Your task to perform on an android device: turn on airplane mode Image 0: 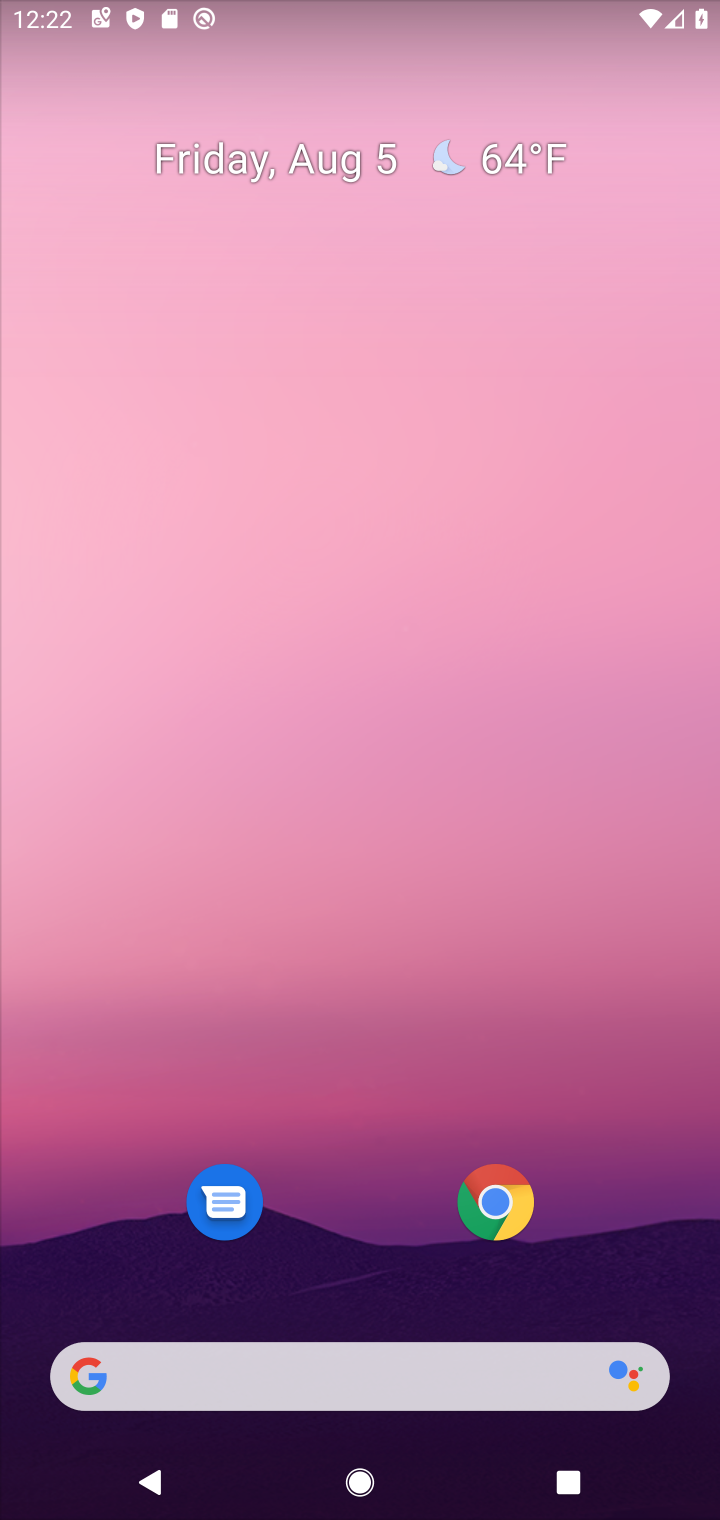
Step 0: drag from (660, 110) to (572, 1242)
Your task to perform on an android device: turn on airplane mode Image 1: 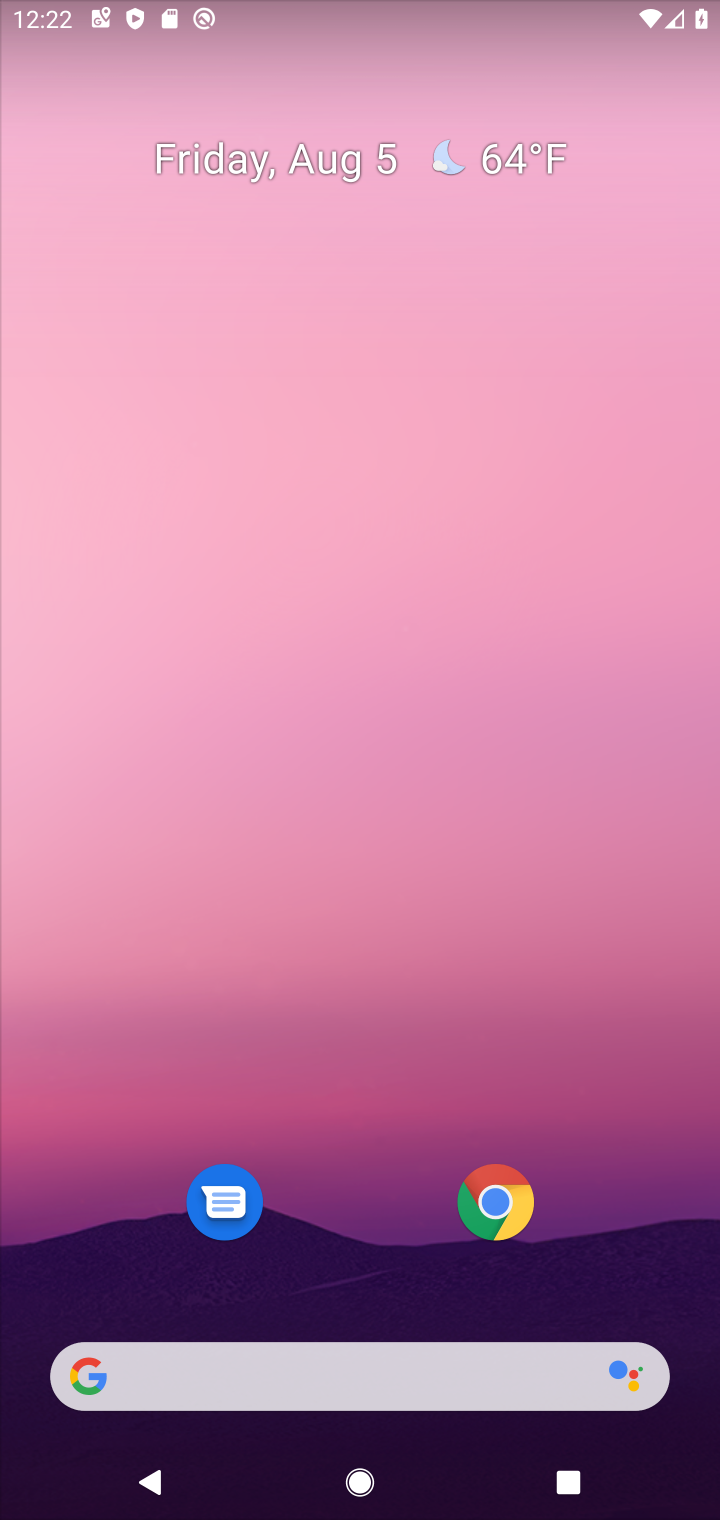
Step 1: drag from (673, 42) to (410, 1196)
Your task to perform on an android device: turn on airplane mode Image 2: 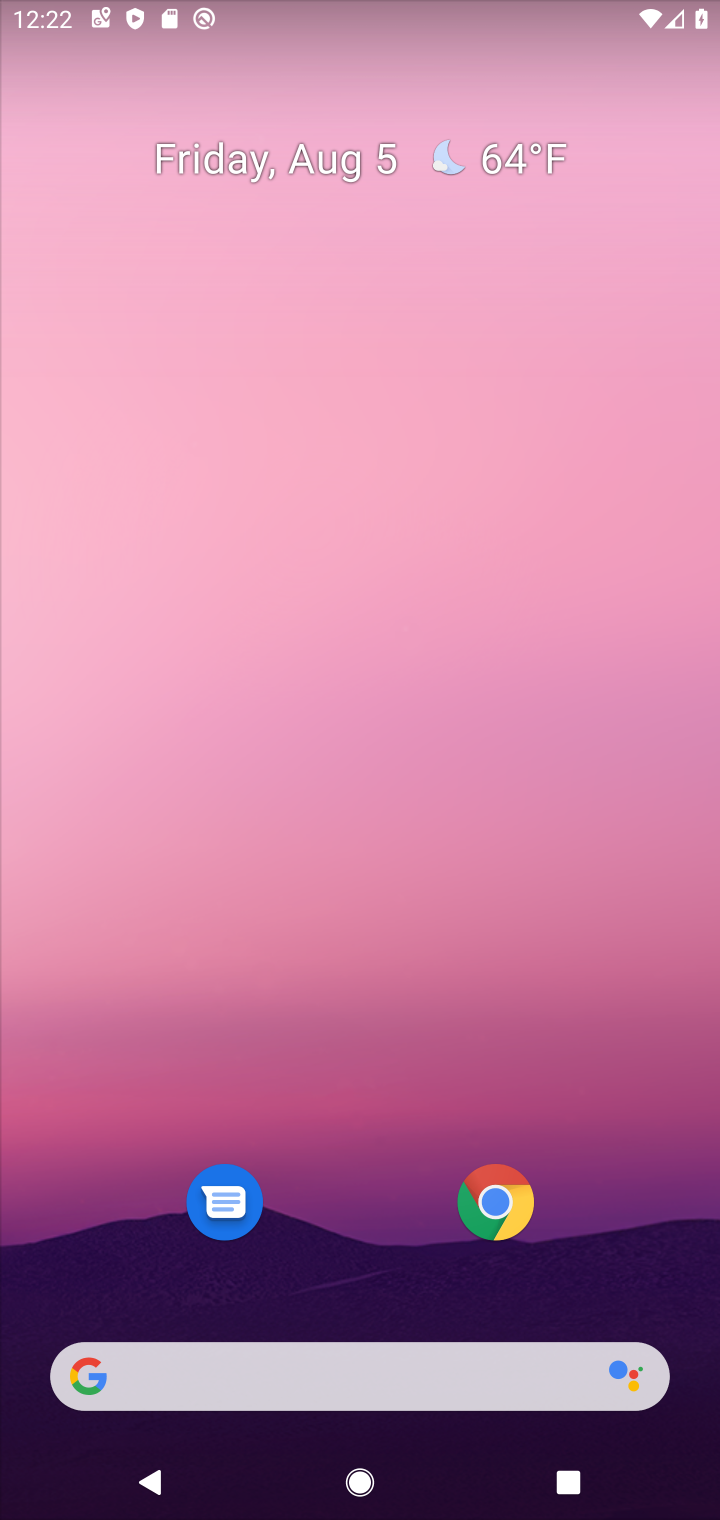
Step 2: drag from (143, 7) to (267, 915)
Your task to perform on an android device: turn on airplane mode Image 3: 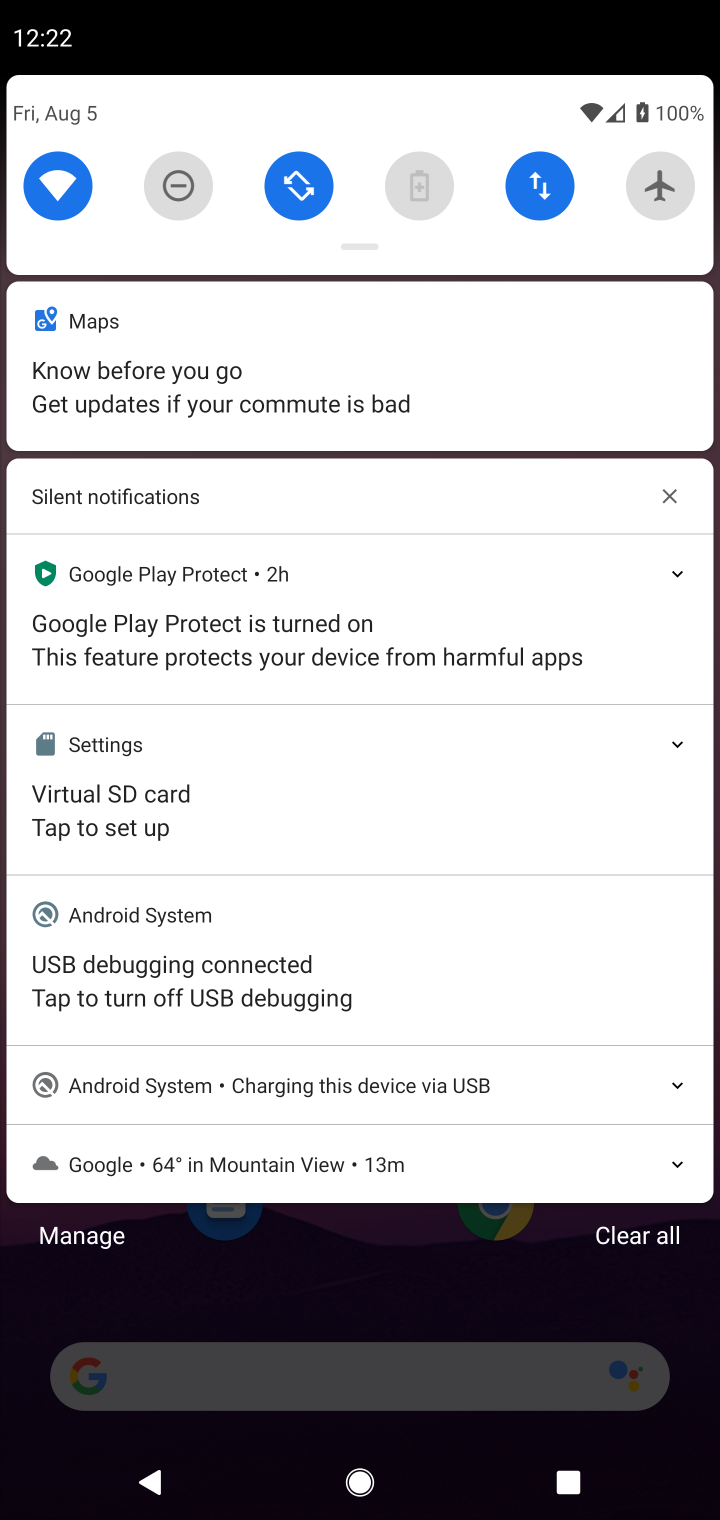
Step 3: click (671, 183)
Your task to perform on an android device: turn on airplane mode Image 4: 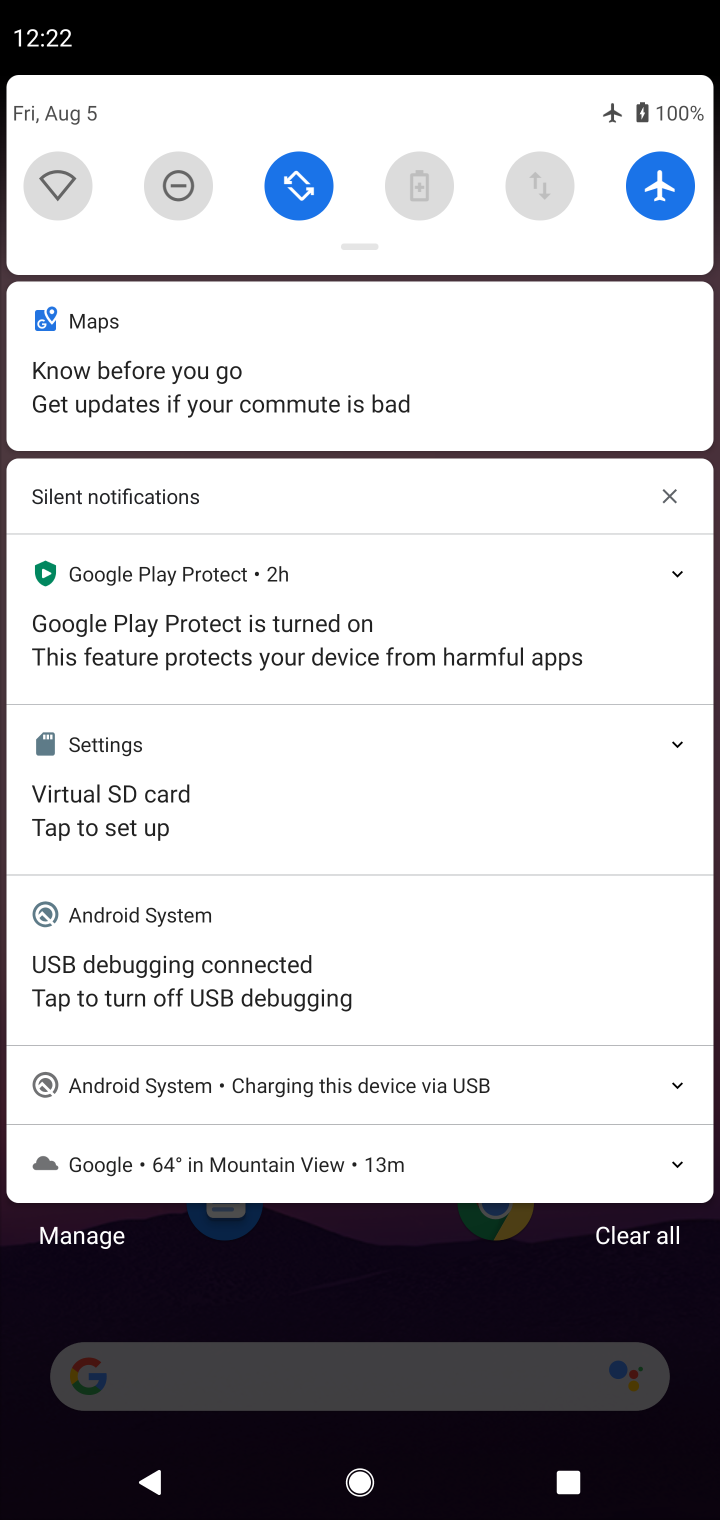
Step 4: task complete